Your task to perform on an android device: Set the phone to "Do not disturb". Image 0: 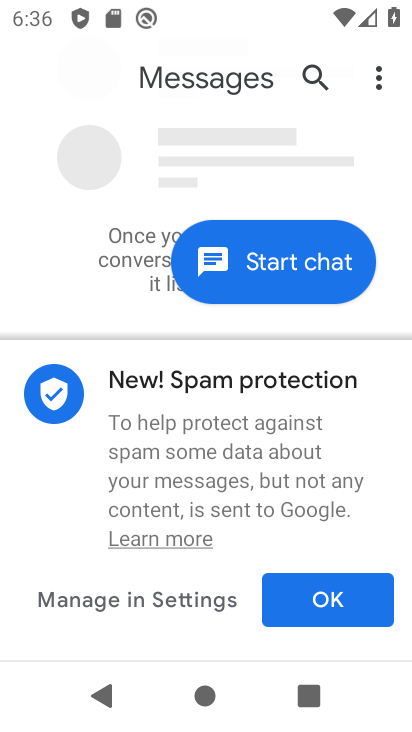
Step 0: press home button
Your task to perform on an android device: Set the phone to "Do not disturb". Image 1: 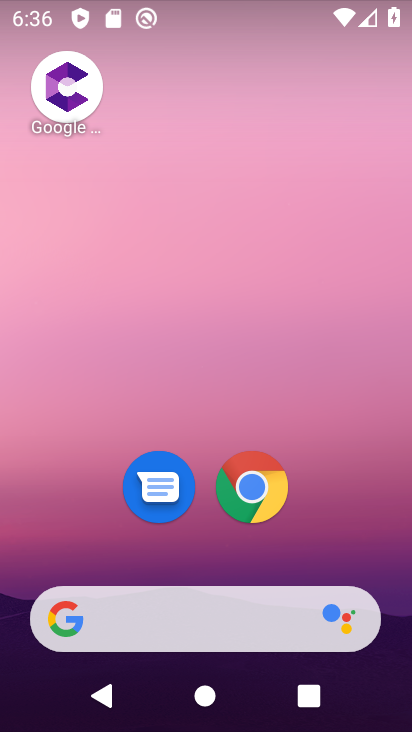
Step 1: drag from (175, 6) to (200, 568)
Your task to perform on an android device: Set the phone to "Do not disturb". Image 2: 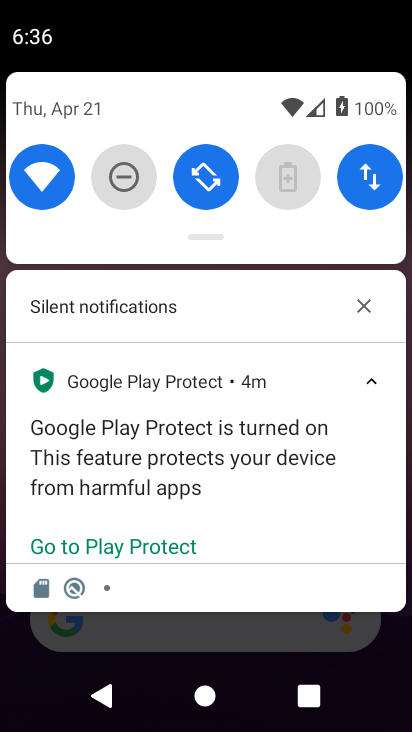
Step 2: click (124, 167)
Your task to perform on an android device: Set the phone to "Do not disturb". Image 3: 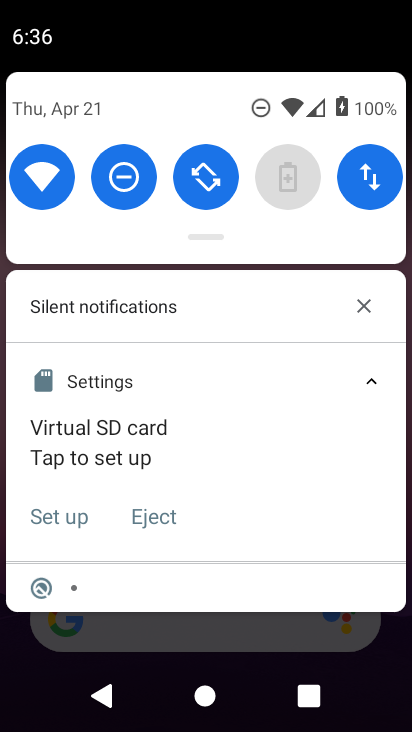
Step 3: task complete